Your task to perform on an android device: Show me popular videos on Youtube Image 0: 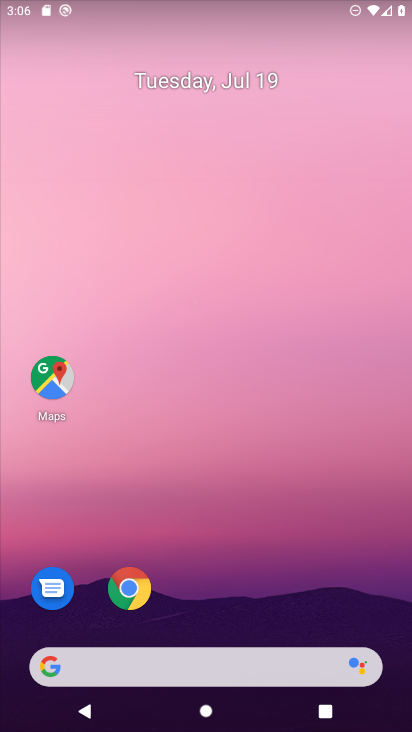
Step 0: drag from (210, 578) to (199, 237)
Your task to perform on an android device: Show me popular videos on Youtube Image 1: 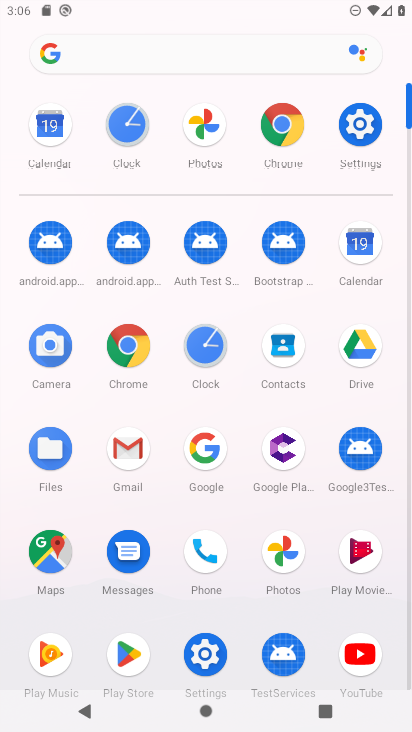
Step 1: click (355, 652)
Your task to perform on an android device: Show me popular videos on Youtube Image 2: 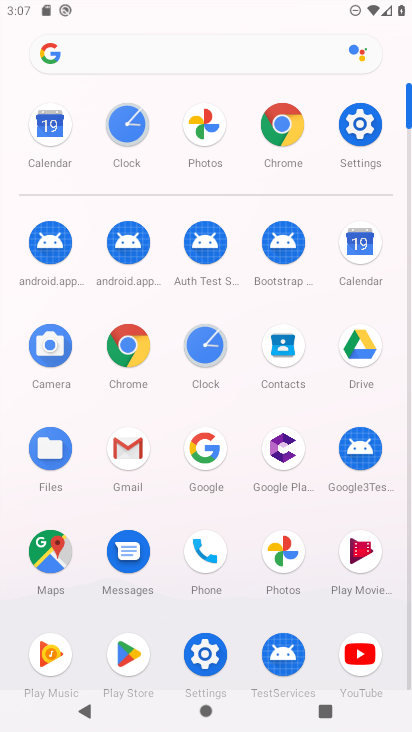
Step 2: click (372, 645)
Your task to perform on an android device: Show me popular videos on Youtube Image 3: 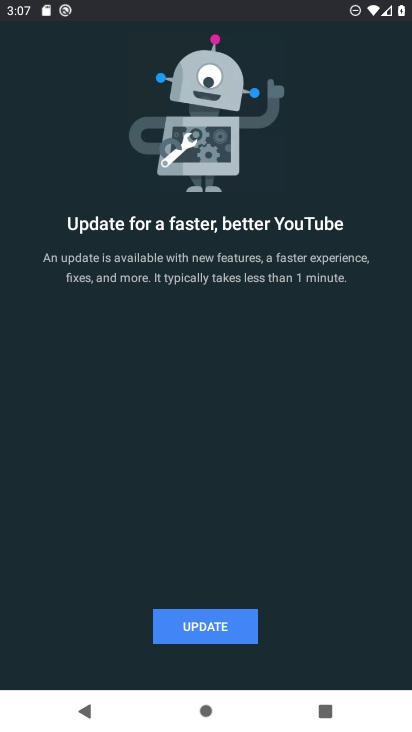
Step 3: click (168, 622)
Your task to perform on an android device: Show me popular videos on Youtube Image 4: 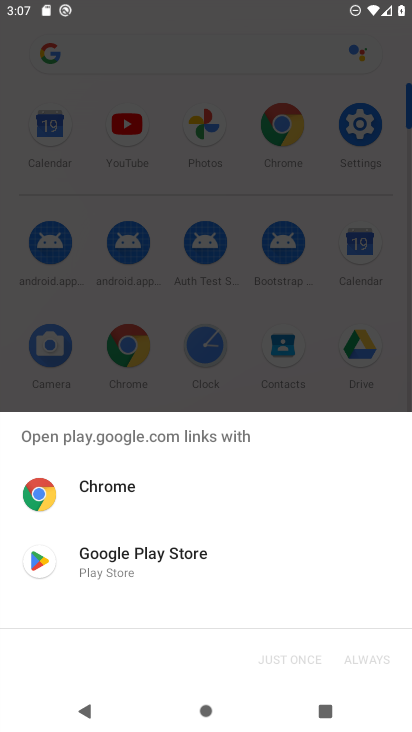
Step 4: click (153, 581)
Your task to perform on an android device: Show me popular videos on Youtube Image 5: 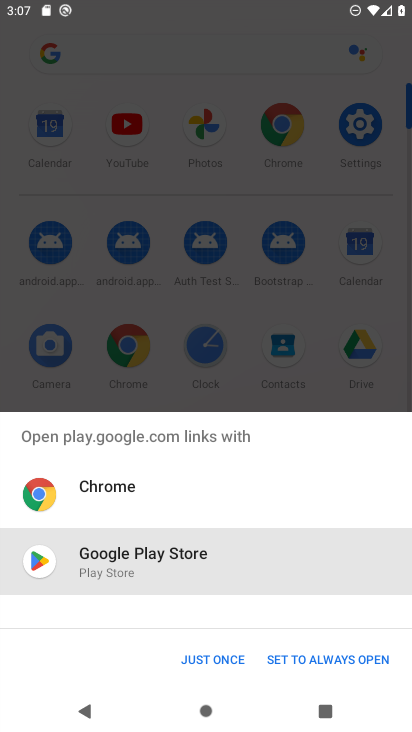
Step 5: click (278, 657)
Your task to perform on an android device: Show me popular videos on Youtube Image 6: 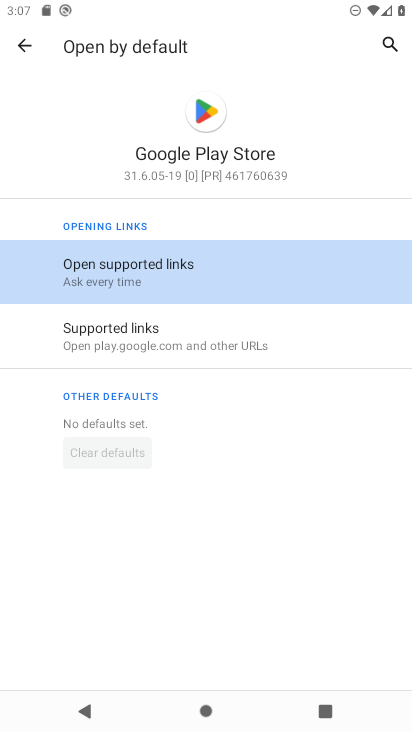
Step 6: click (144, 275)
Your task to perform on an android device: Show me popular videos on Youtube Image 7: 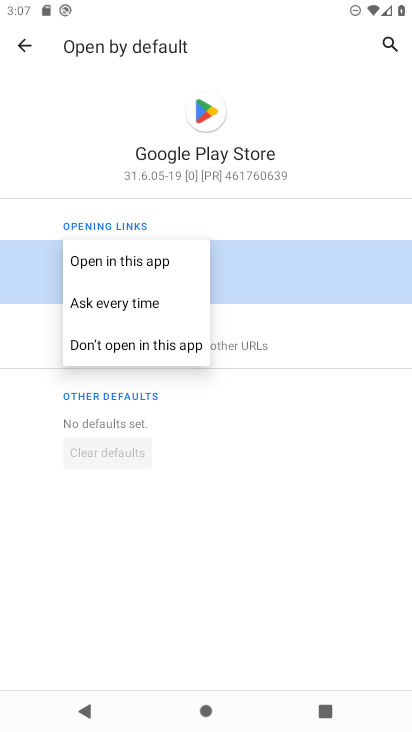
Step 7: click (140, 265)
Your task to perform on an android device: Show me popular videos on Youtube Image 8: 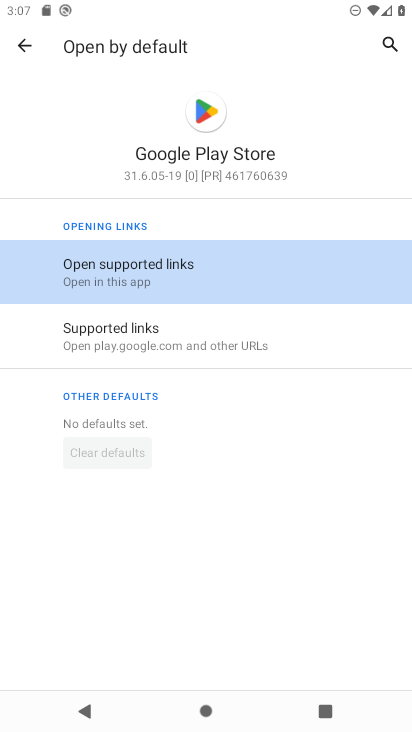
Step 8: click (18, 46)
Your task to perform on an android device: Show me popular videos on Youtube Image 9: 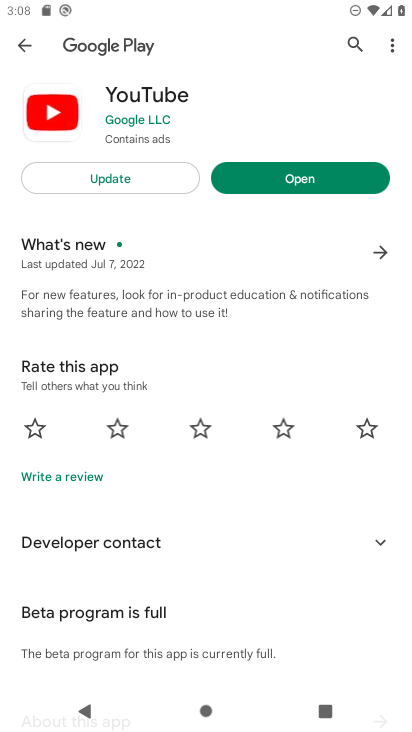
Step 9: click (95, 175)
Your task to perform on an android device: Show me popular videos on Youtube Image 10: 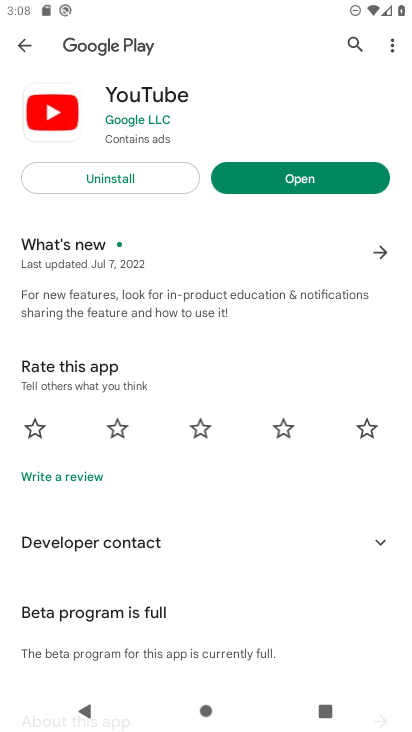
Step 10: click (308, 180)
Your task to perform on an android device: Show me popular videos on Youtube Image 11: 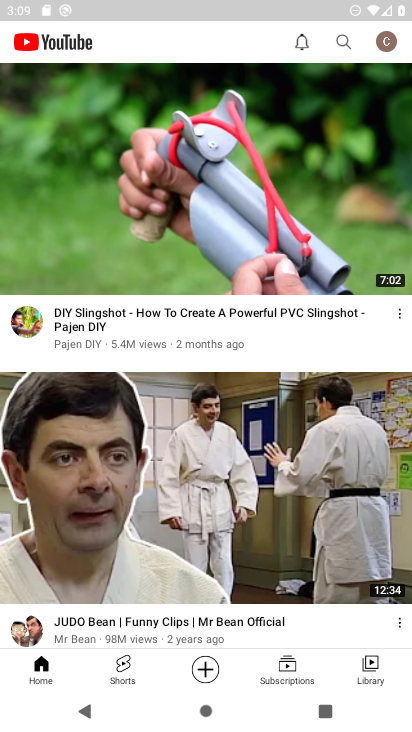
Step 11: task complete